Your task to perform on an android device: turn notification dots off Image 0: 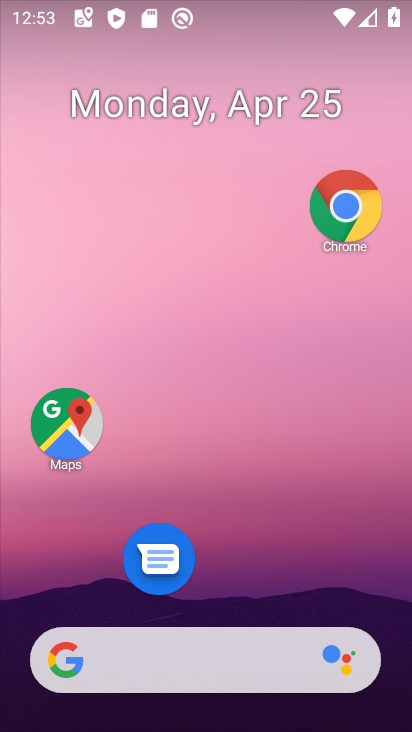
Step 0: drag from (225, 578) to (305, 68)
Your task to perform on an android device: turn notification dots off Image 1: 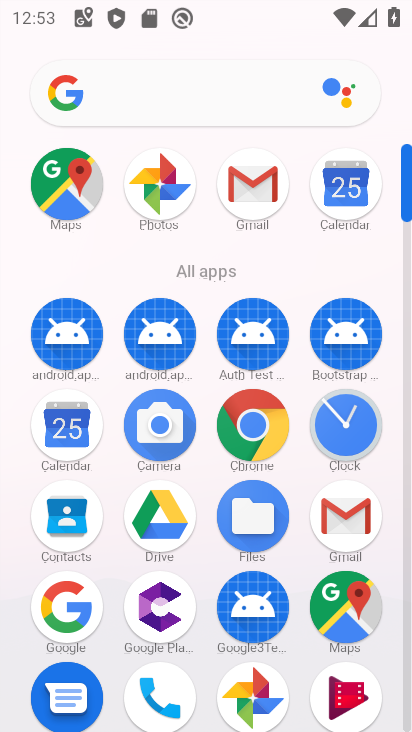
Step 1: drag from (239, 663) to (286, 73)
Your task to perform on an android device: turn notification dots off Image 2: 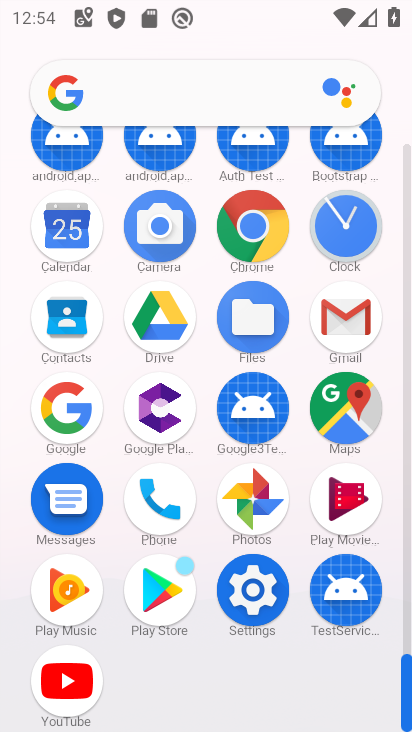
Step 2: click (245, 607)
Your task to perform on an android device: turn notification dots off Image 3: 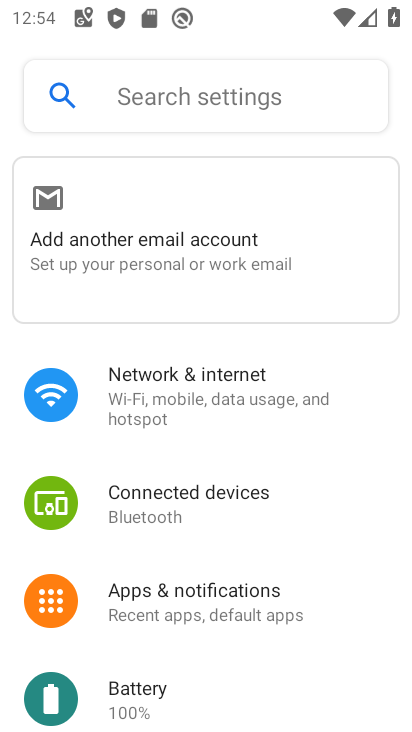
Step 3: click (255, 614)
Your task to perform on an android device: turn notification dots off Image 4: 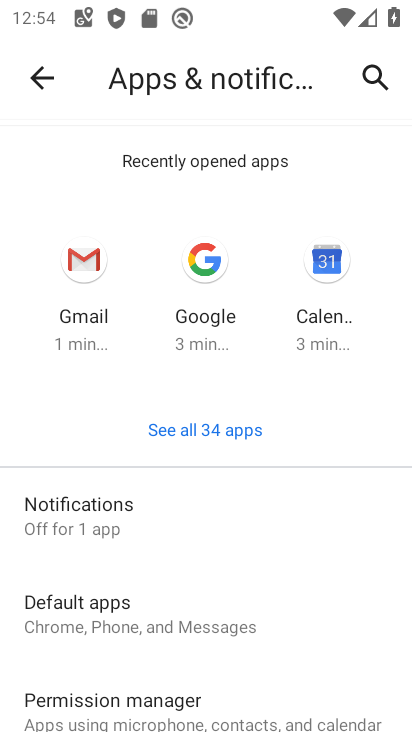
Step 4: click (136, 521)
Your task to perform on an android device: turn notification dots off Image 5: 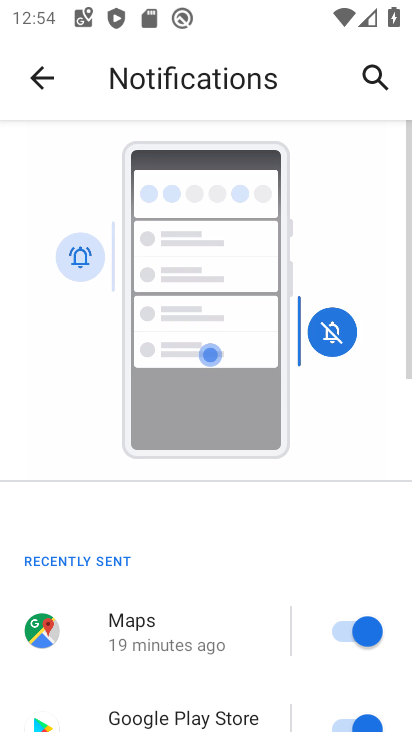
Step 5: drag from (195, 608) to (301, 46)
Your task to perform on an android device: turn notification dots off Image 6: 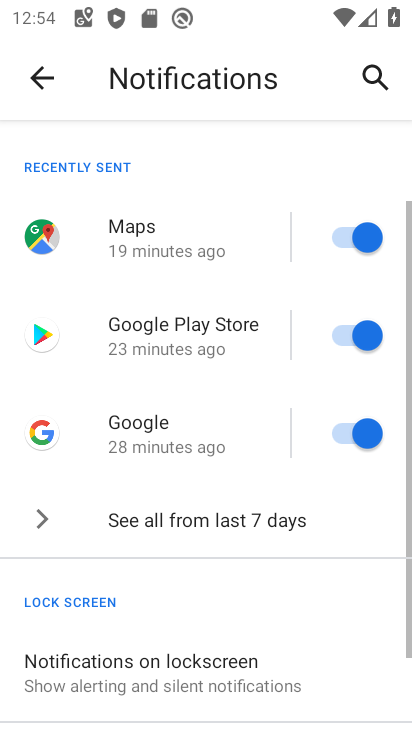
Step 6: drag from (181, 580) to (259, 130)
Your task to perform on an android device: turn notification dots off Image 7: 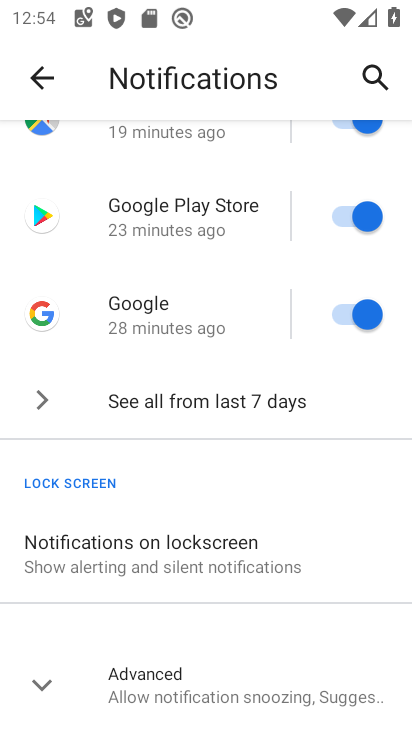
Step 7: click (211, 676)
Your task to perform on an android device: turn notification dots off Image 8: 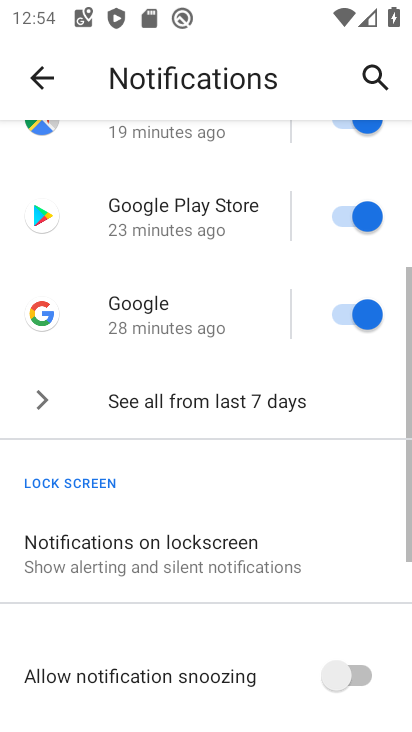
Step 8: drag from (236, 597) to (297, 124)
Your task to perform on an android device: turn notification dots off Image 9: 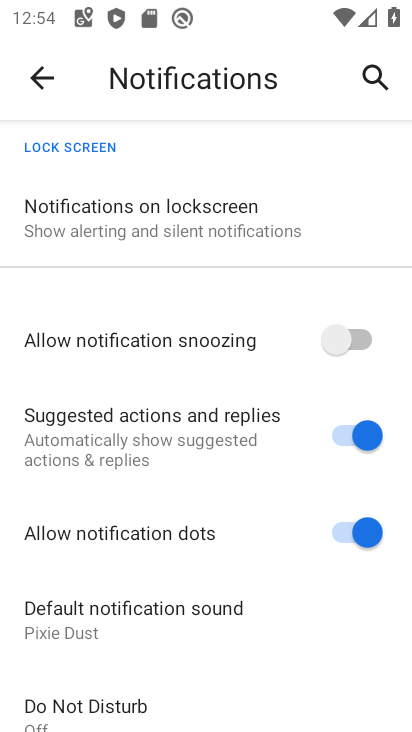
Step 9: click (367, 530)
Your task to perform on an android device: turn notification dots off Image 10: 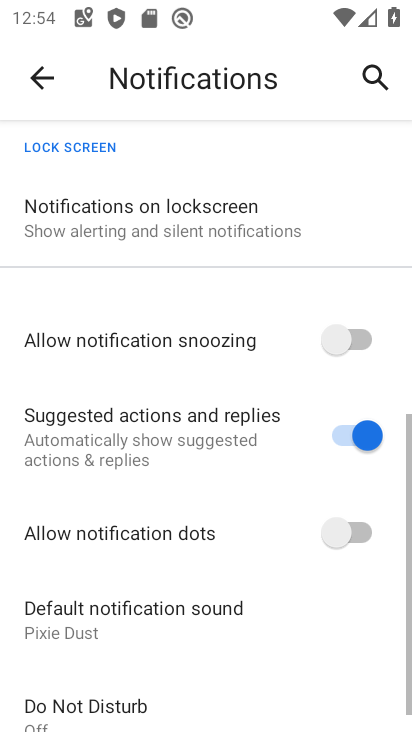
Step 10: task complete